Your task to perform on an android device: Open maps Image 0: 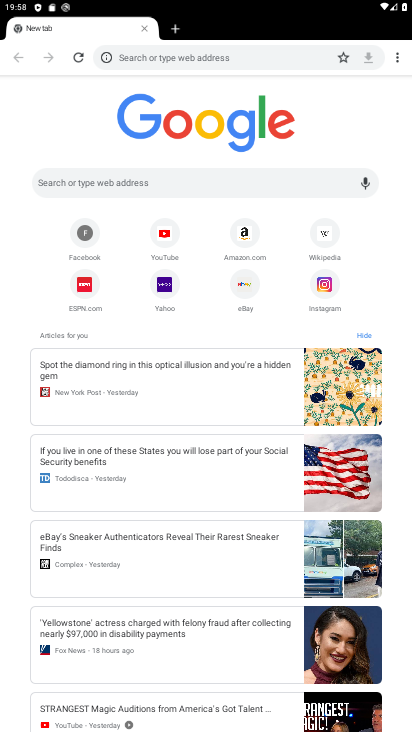
Step 0: press home button
Your task to perform on an android device: Open maps Image 1: 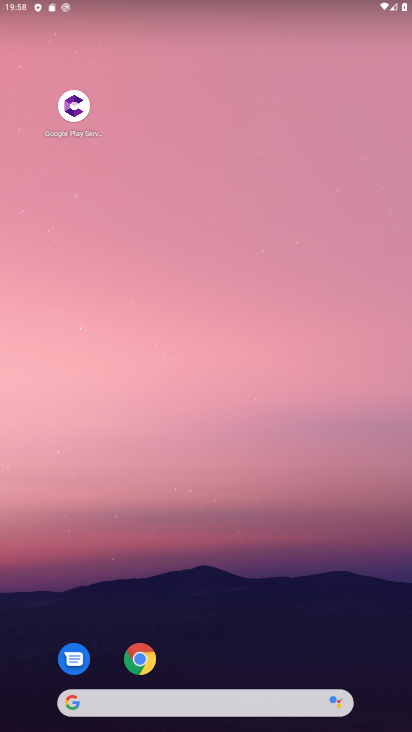
Step 1: drag from (368, 632) to (357, 123)
Your task to perform on an android device: Open maps Image 2: 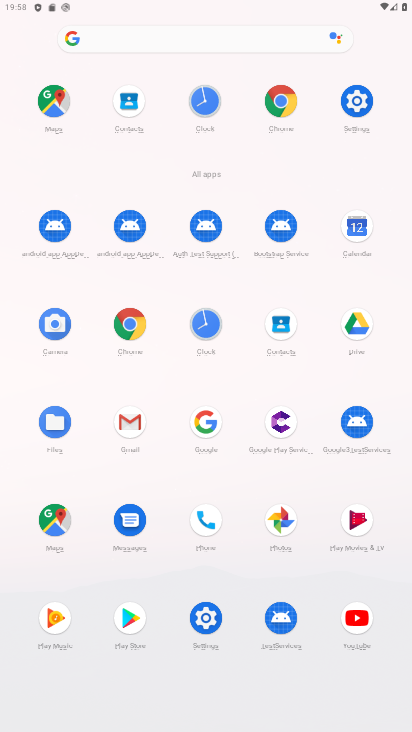
Step 2: click (56, 522)
Your task to perform on an android device: Open maps Image 3: 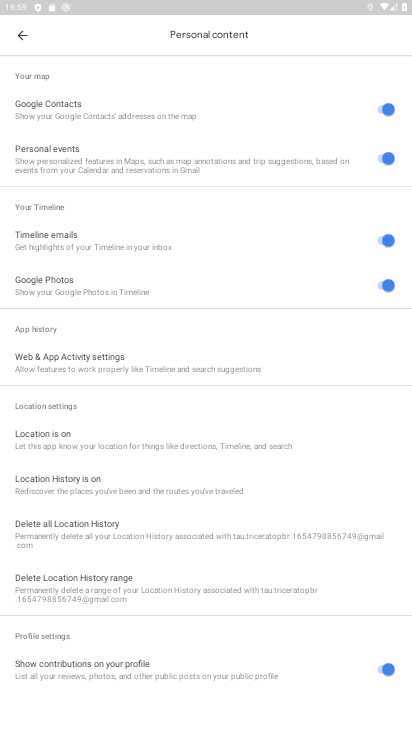
Step 3: task complete